Your task to perform on an android device: turn on sleep mode Image 0: 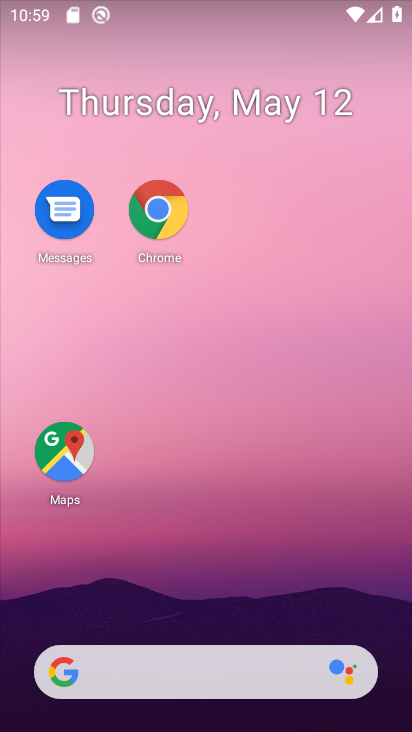
Step 0: drag from (267, 156) to (270, 49)
Your task to perform on an android device: turn on sleep mode Image 1: 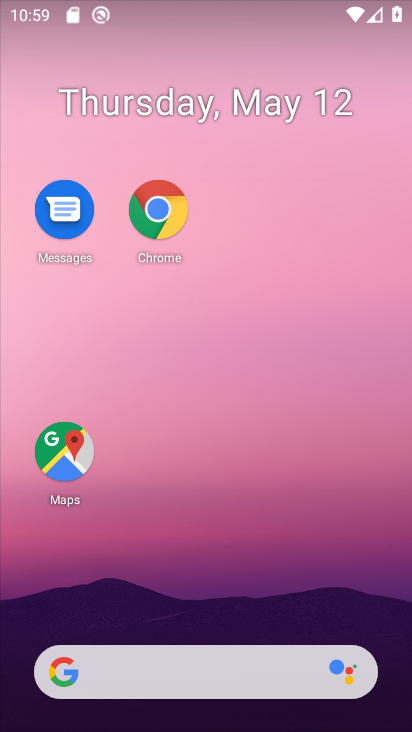
Step 1: drag from (183, 600) to (170, 7)
Your task to perform on an android device: turn on sleep mode Image 2: 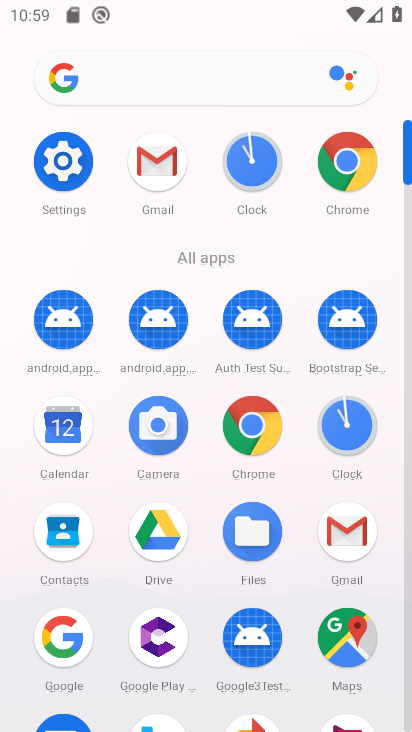
Step 2: click (58, 168)
Your task to perform on an android device: turn on sleep mode Image 3: 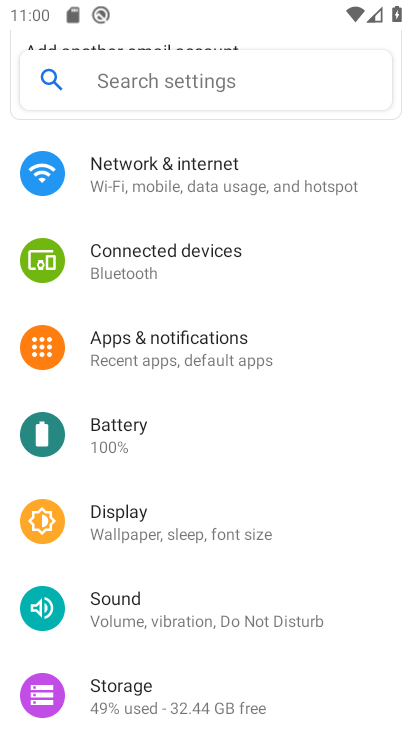
Step 3: task complete